Your task to perform on an android device: Open the stopwatch Image 0: 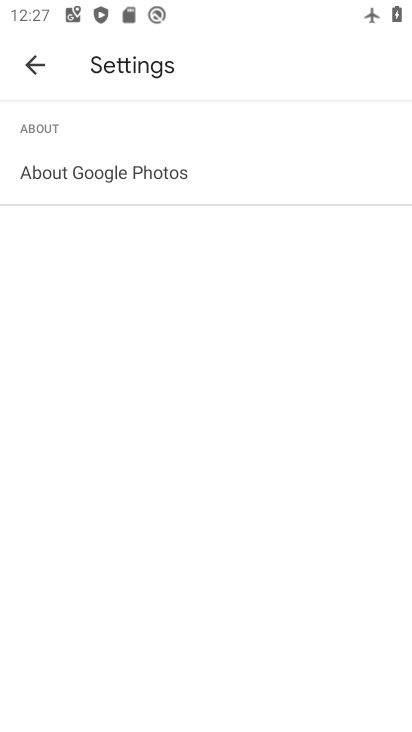
Step 0: press home button
Your task to perform on an android device: Open the stopwatch Image 1: 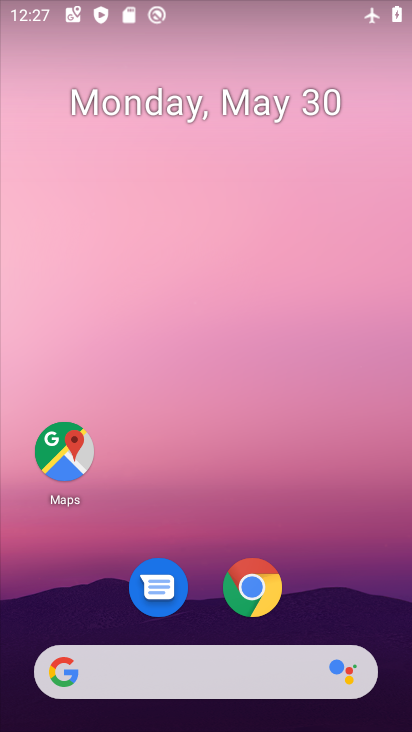
Step 1: drag from (157, 728) to (159, 53)
Your task to perform on an android device: Open the stopwatch Image 2: 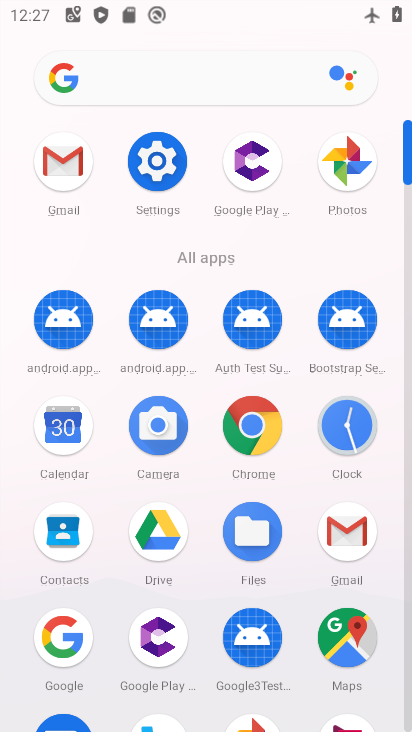
Step 2: click (359, 440)
Your task to perform on an android device: Open the stopwatch Image 3: 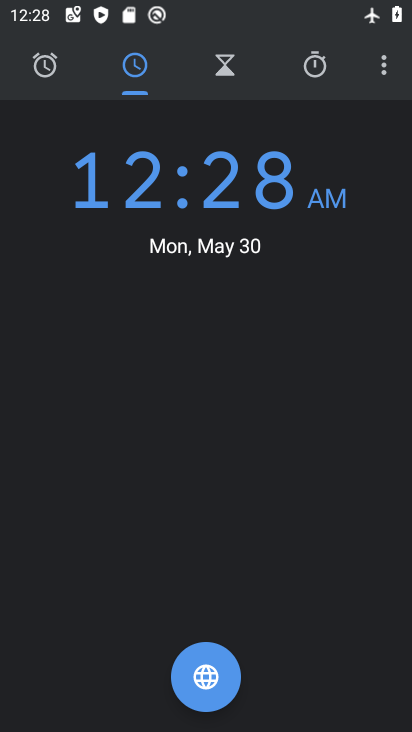
Step 3: click (321, 68)
Your task to perform on an android device: Open the stopwatch Image 4: 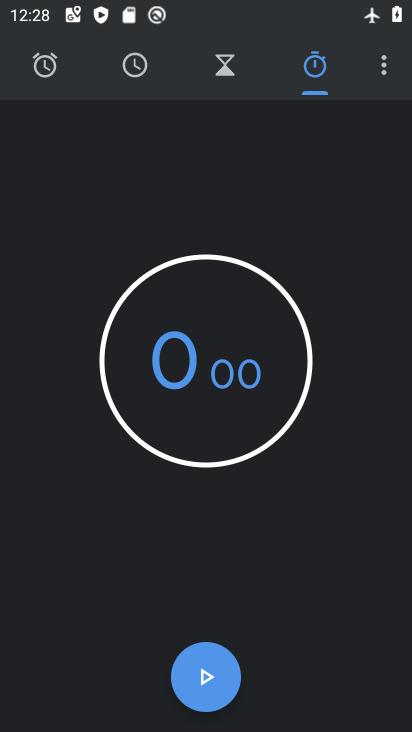
Step 4: task complete